Your task to perform on an android device: install app "Indeed Job Search" Image 0: 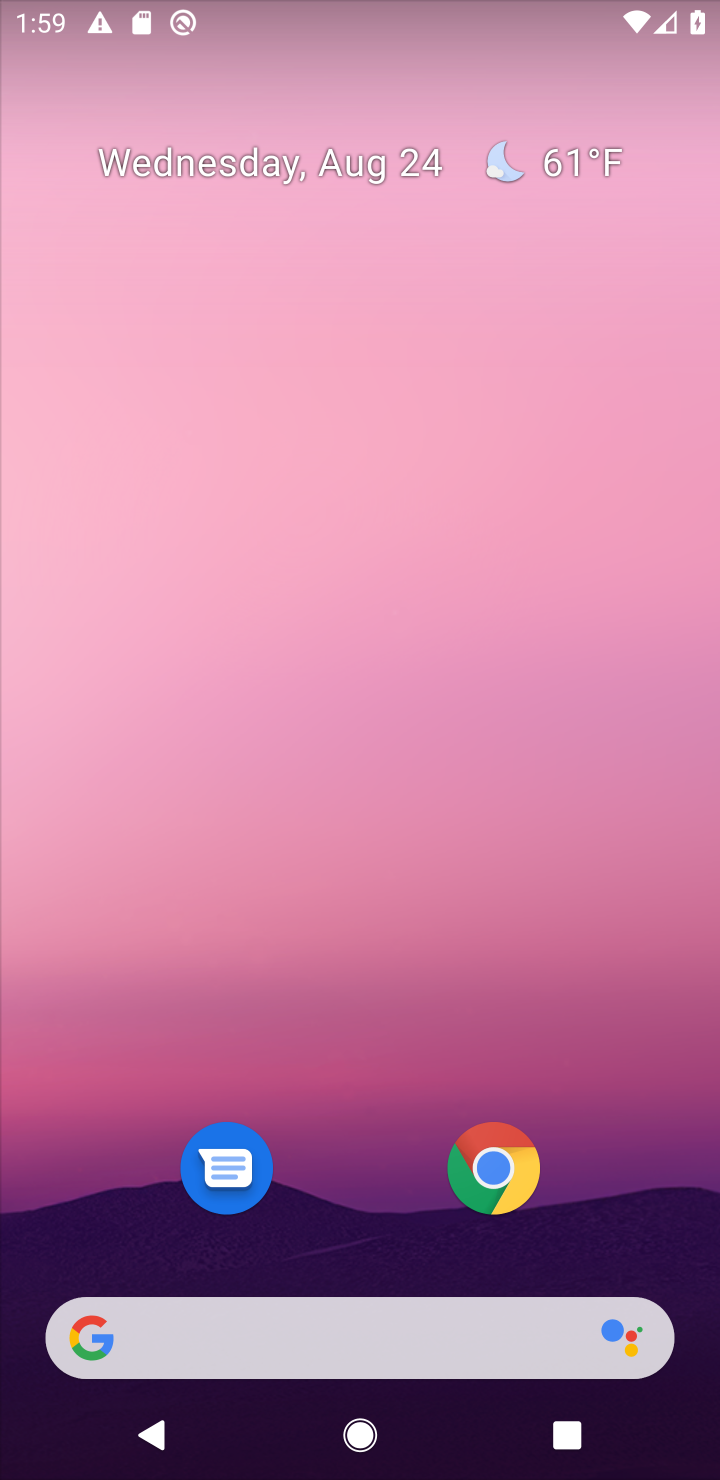
Step 0: drag from (595, 763) to (597, 55)
Your task to perform on an android device: install app "Indeed Job Search" Image 1: 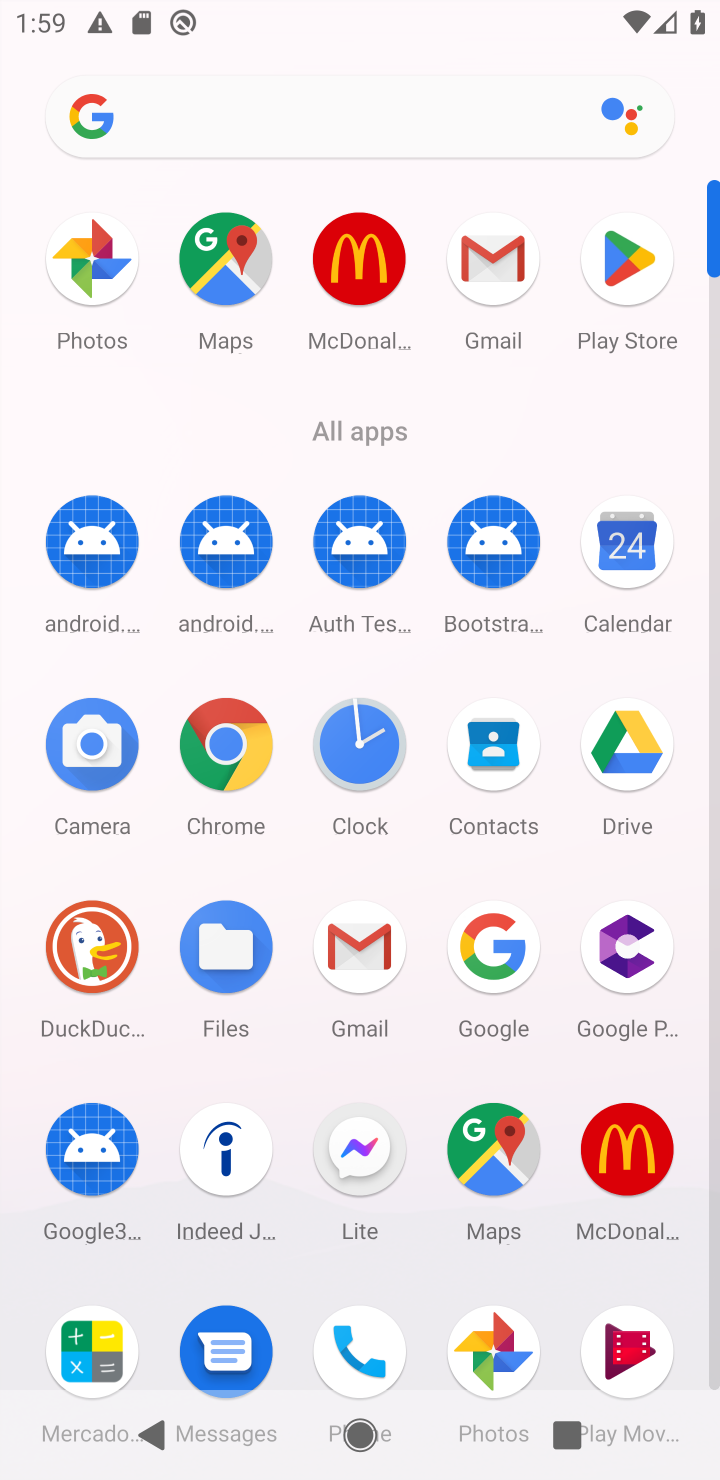
Step 1: click (717, 1367)
Your task to perform on an android device: install app "Indeed Job Search" Image 2: 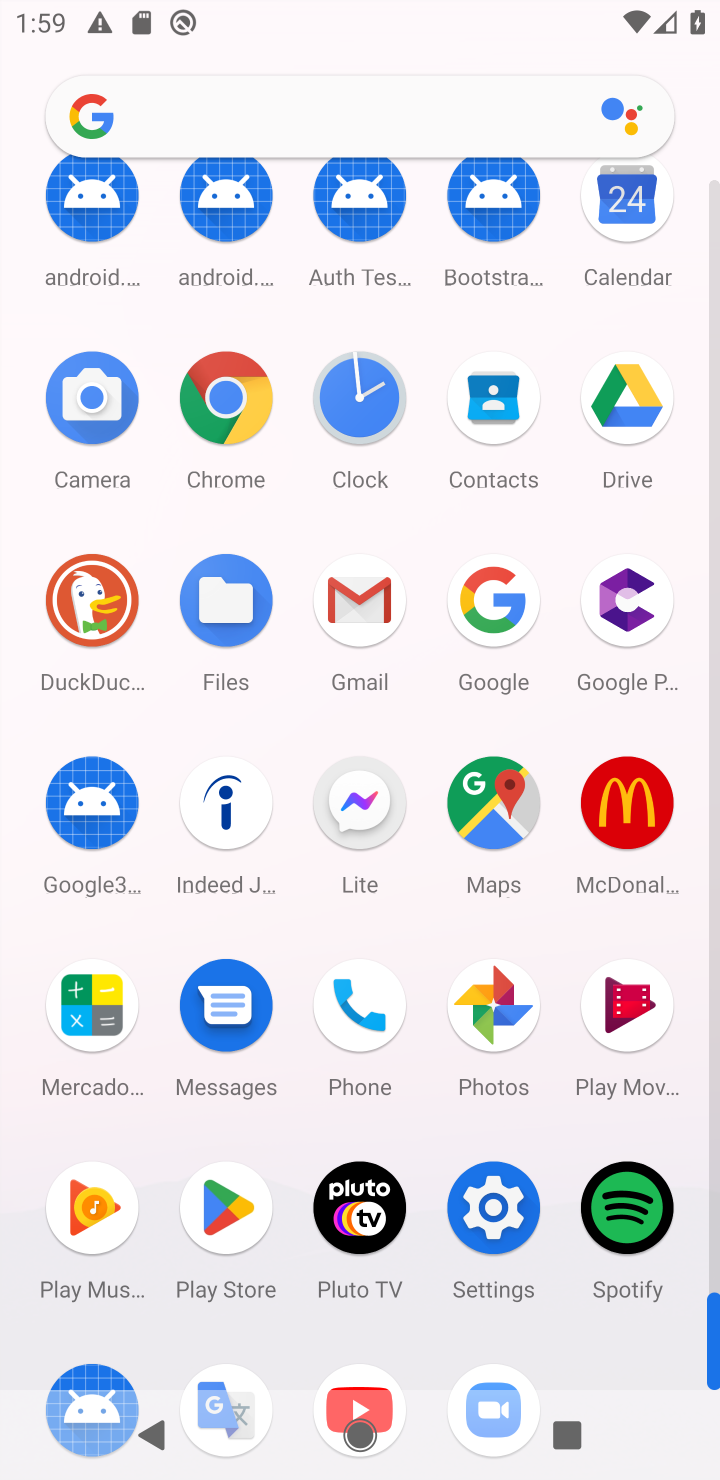
Step 2: click (223, 1206)
Your task to perform on an android device: install app "Indeed Job Search" Image 3: 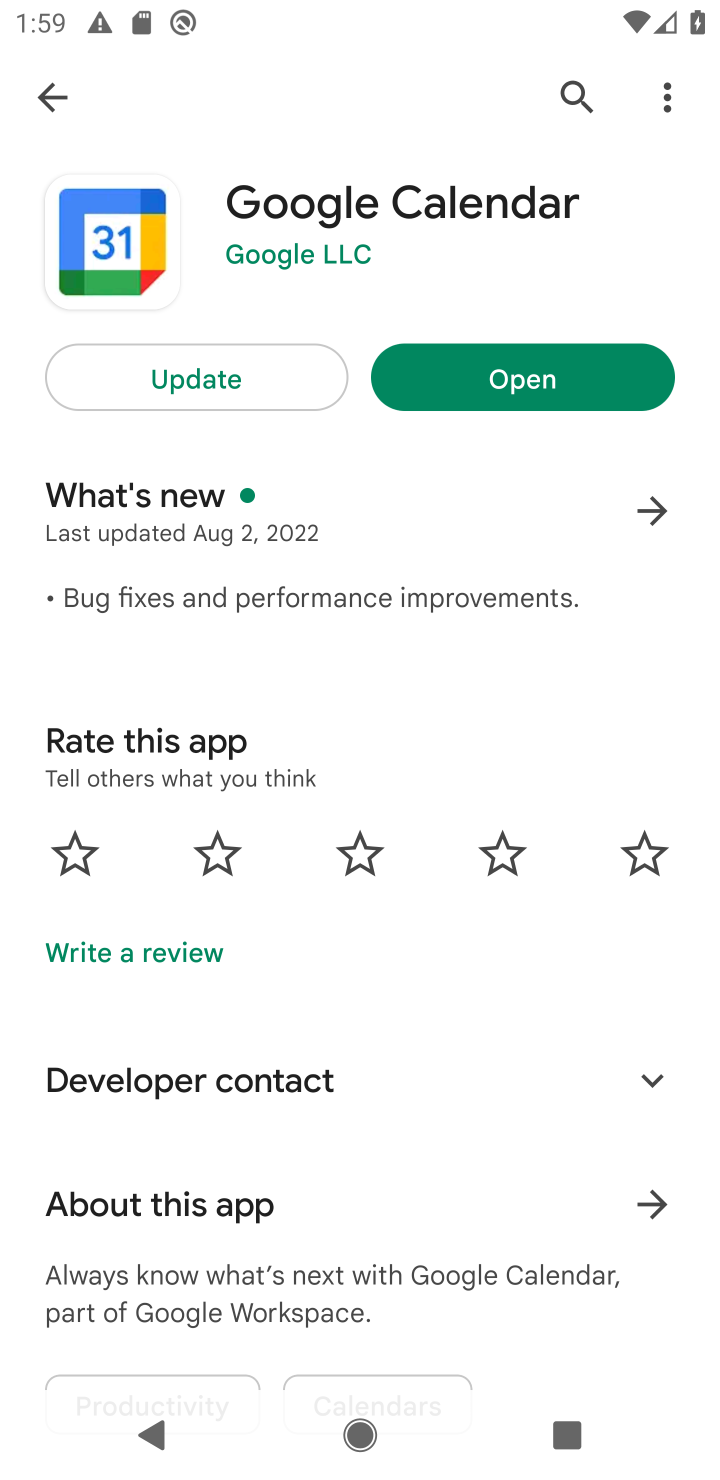
Step 3: click (564, 82)
Your task to perform on an android device: install app "Indeed Job Search" Image 4: 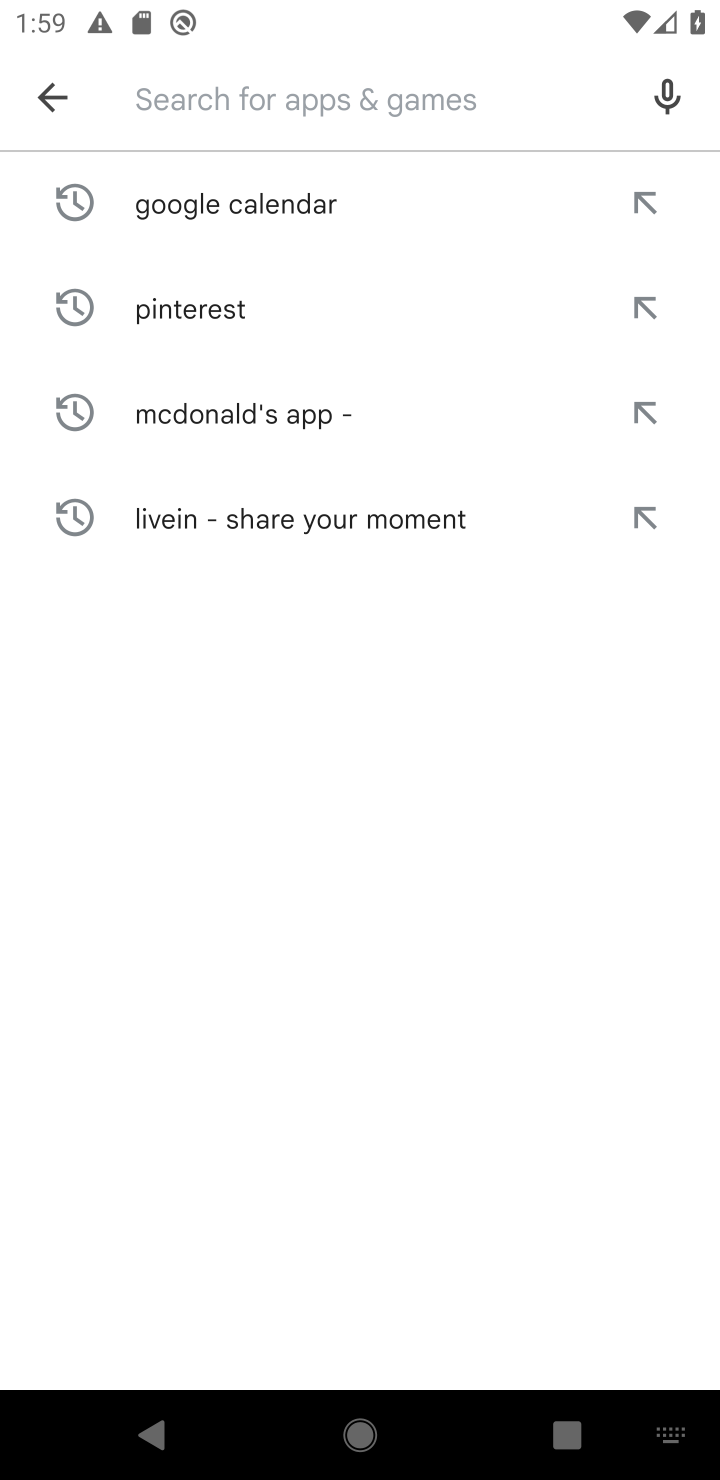
Step 4: type "Indeed Job Search"
Your task to perform on an android device: install app "Indeed Job Search" Image 5: 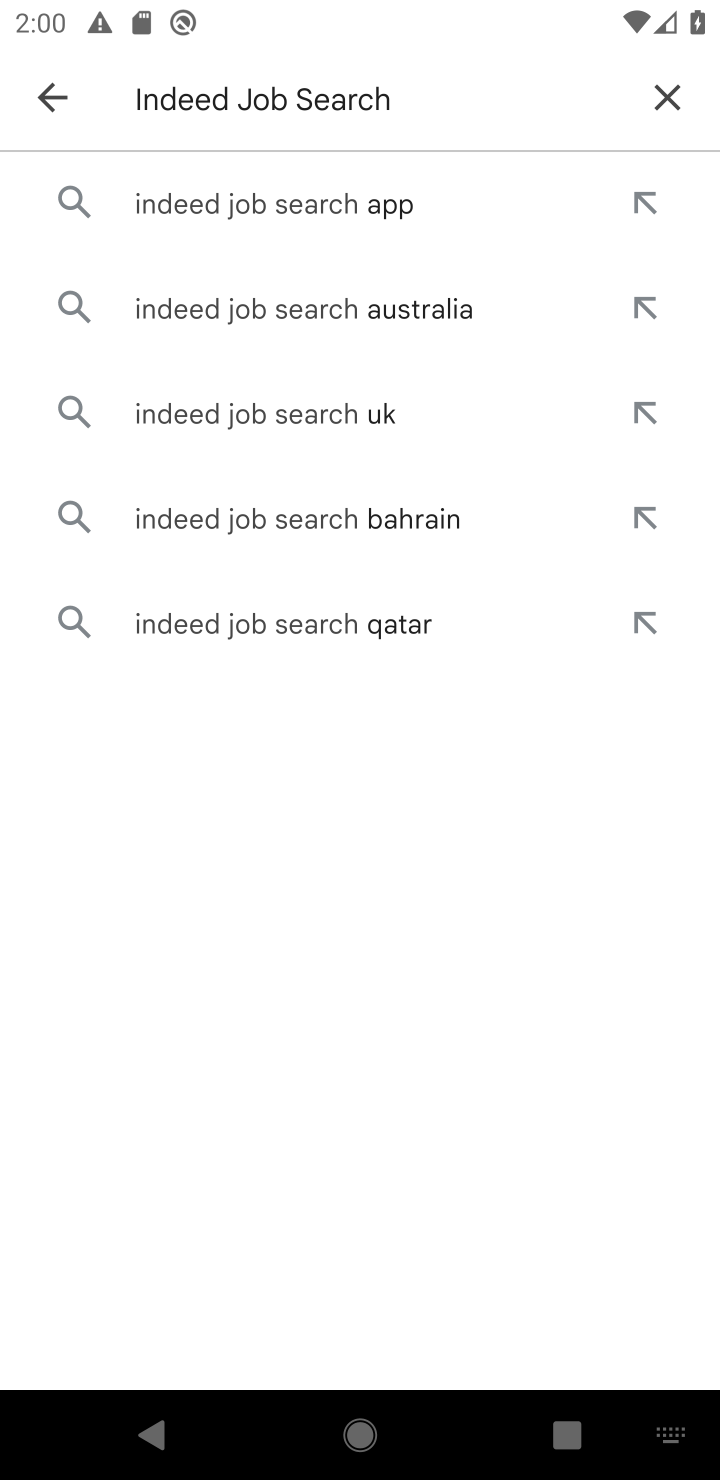
Step 5: click (253, 190)
Your task to perform on an android device: install app "Indeed Job Search" Image 6: 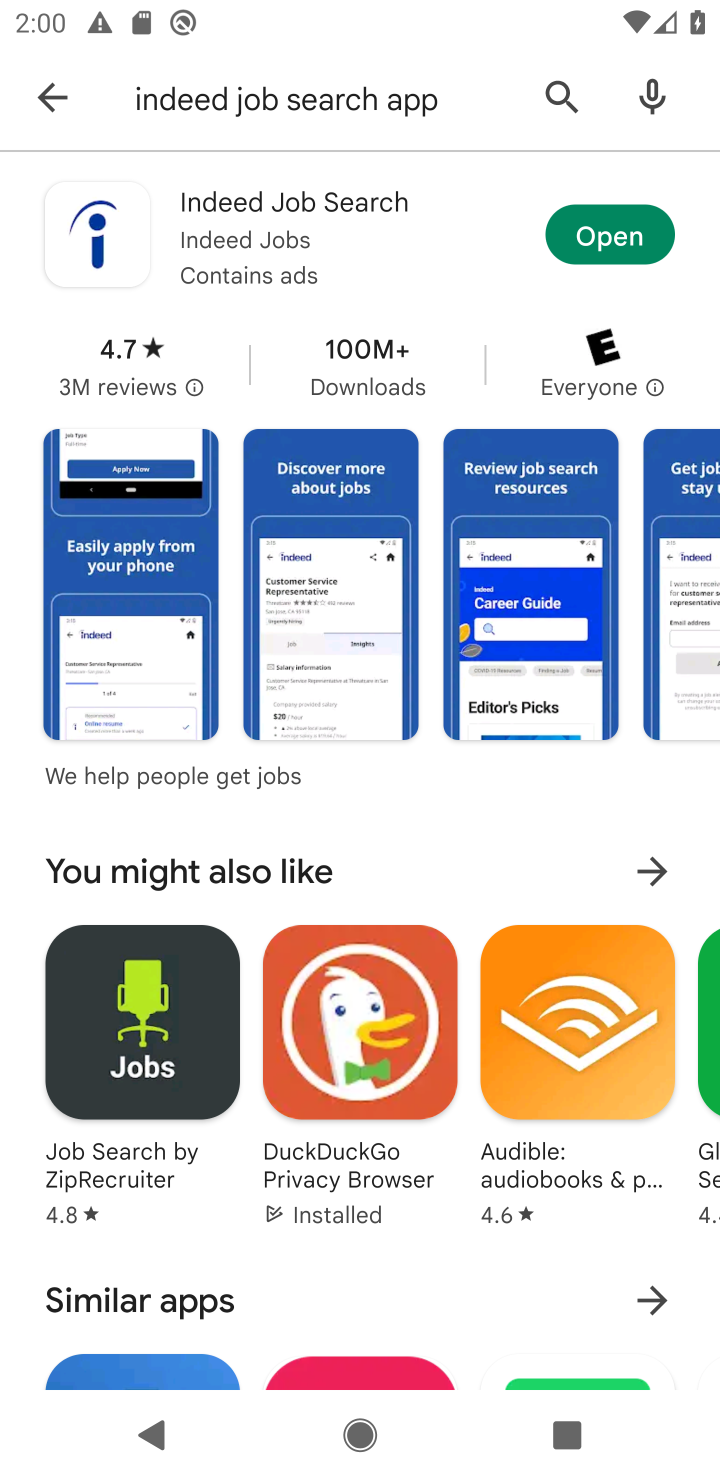
Step 6: click (253, 190)
Your task to perform on an android device: install app "Indeed Job Search" Image 7: 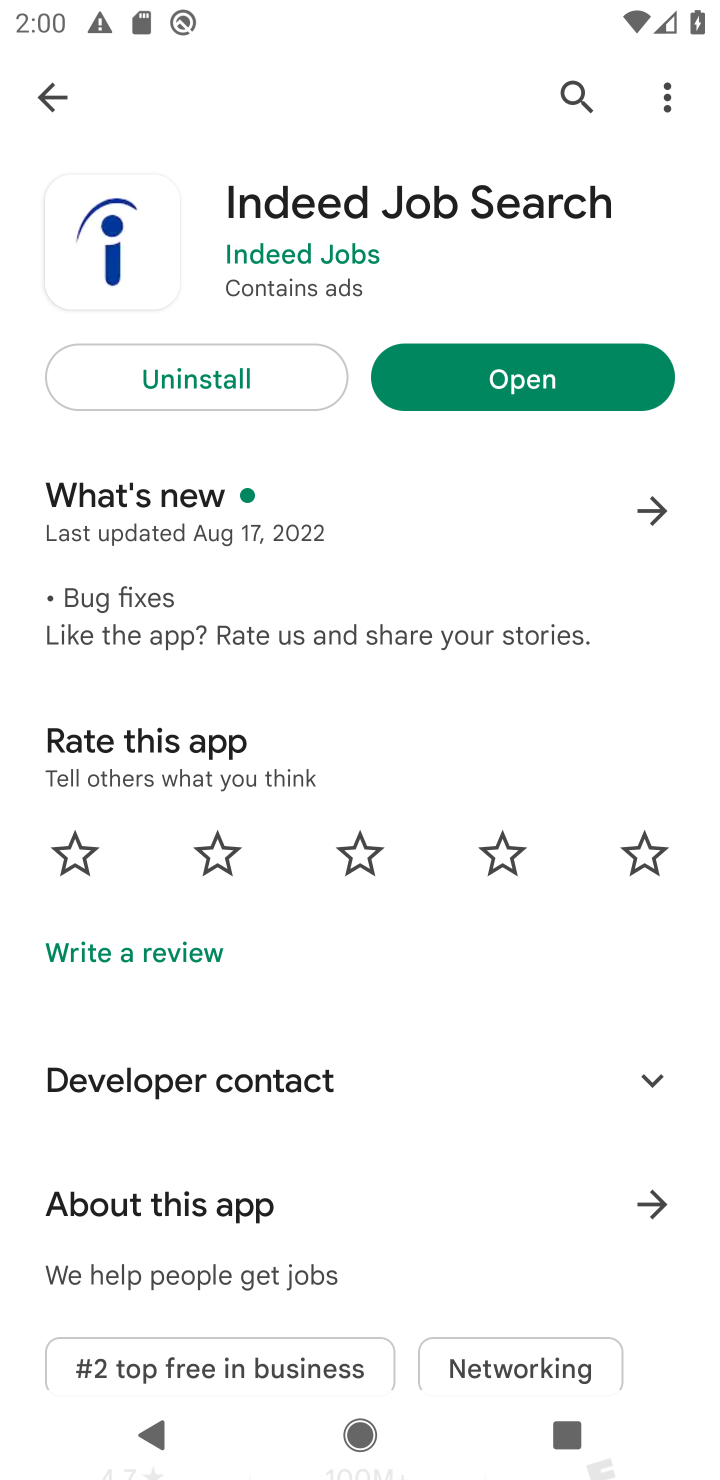
Step 7: task complete